Your task to perform on an android device: Clear all items from cart on target. Add alienware aurora to the cart on target, then select checkout. Image 0: 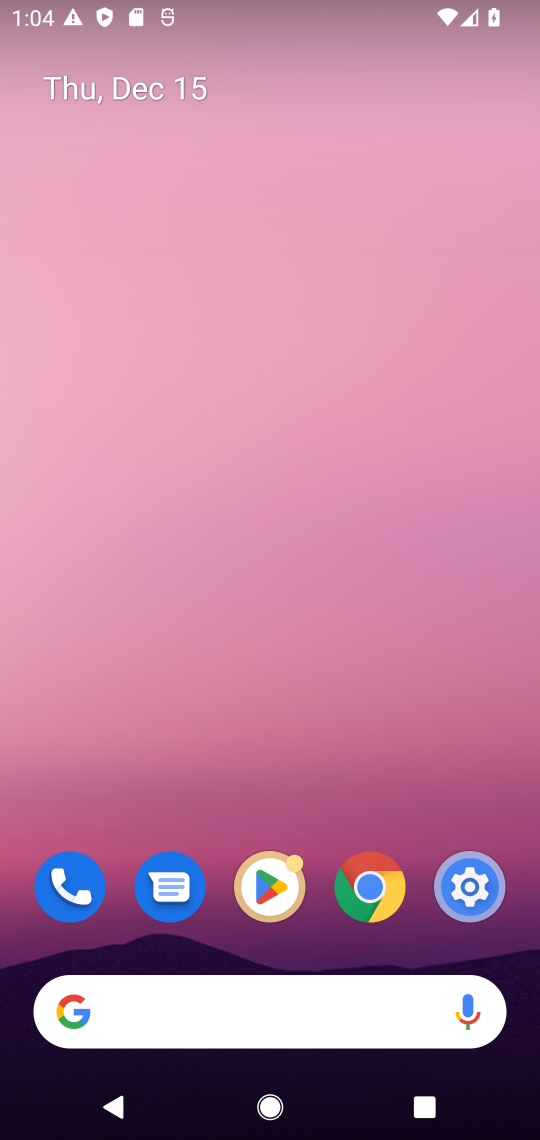
Step 0: click (397, 876)
Your task to perform on an android device: Clear all items from cart on target. Add alienware aurora to the cart on target, then select checkout. Image 1: 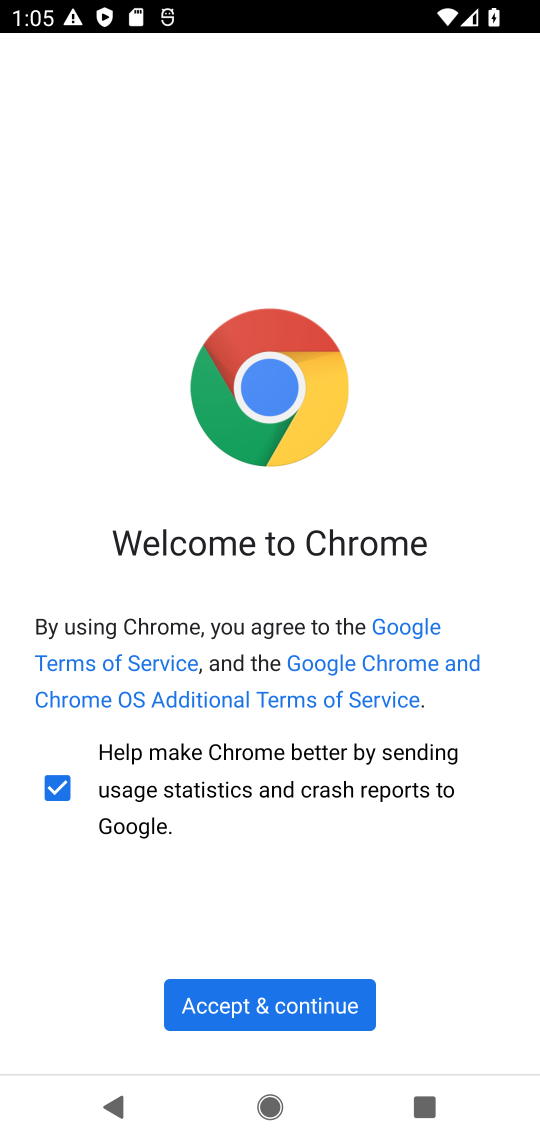
Step 1: click (237, 1006)
Your task to perform on an android device: Clear all items from cart on target. Add alienware aurora to the cart on target, then select checkout. Image 2: 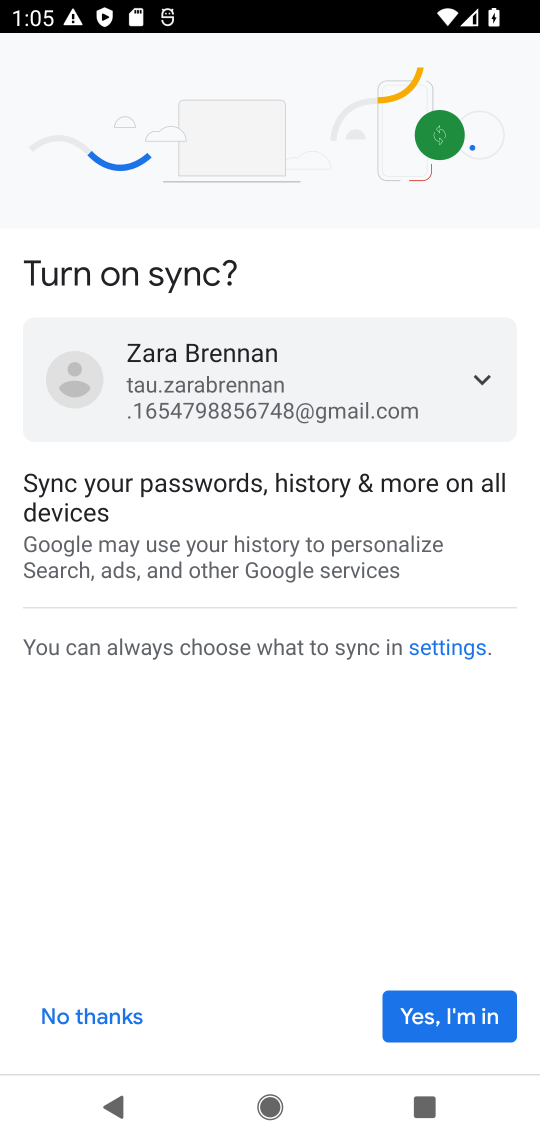
Step 2: click (76, 1021)
Your task to perform on an android device: Clear all items from cart on target. Add alienware aurora to the cart on target, then select checkout. Image 3: 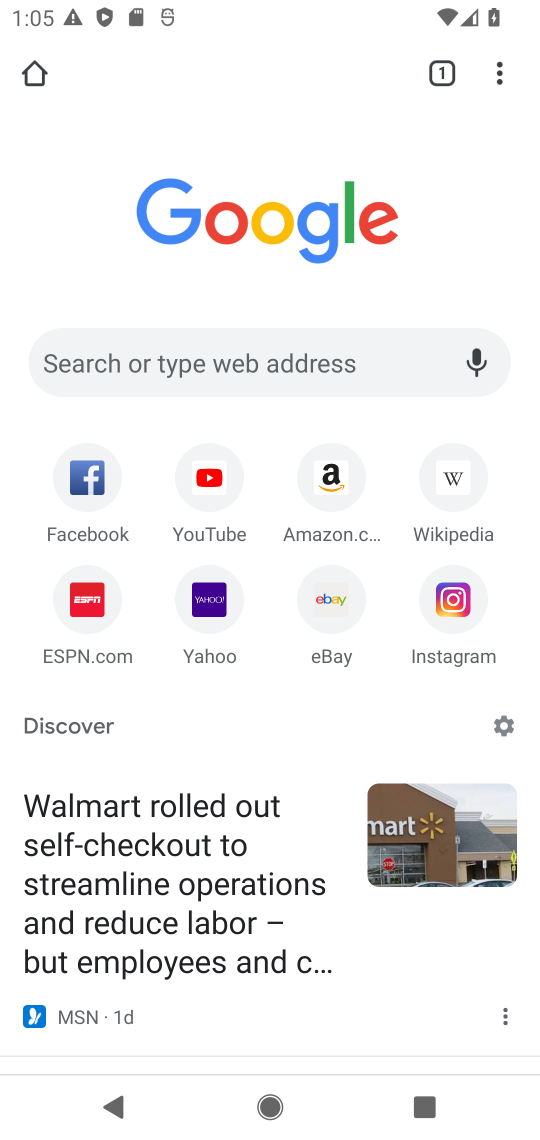
Step 3: click (168, 361)
Your task to perform on an android device: Clear all items from cart on target. Add alienware aurora to the cart on target, then select checkout. Image 4: 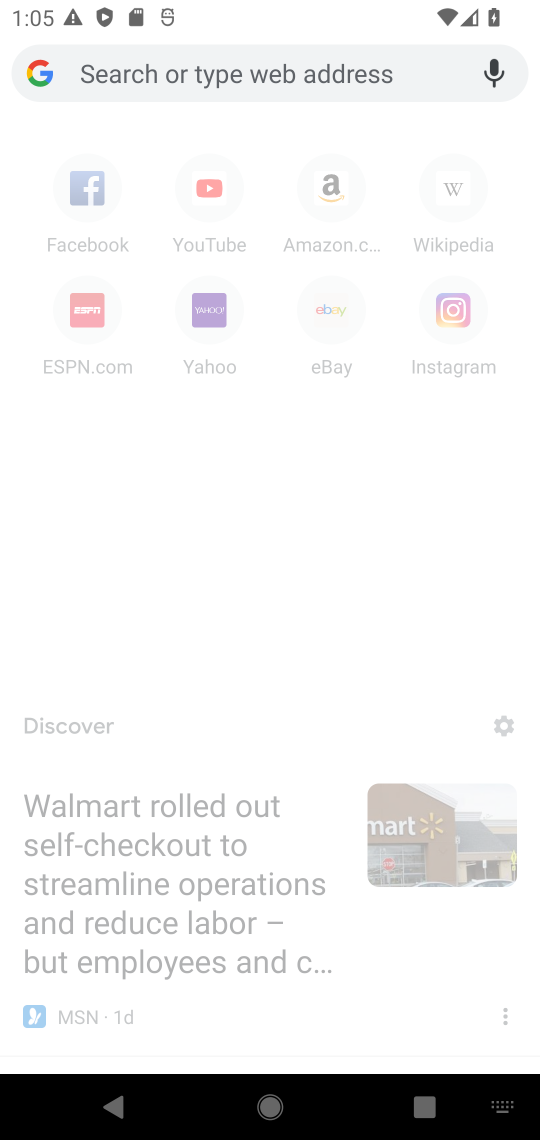
Step 4: type "target.com"
Your task to perform on an android device: Clear all items from cart on target. Add alienware aurora to the cart on target, then select checkout. Image 5: 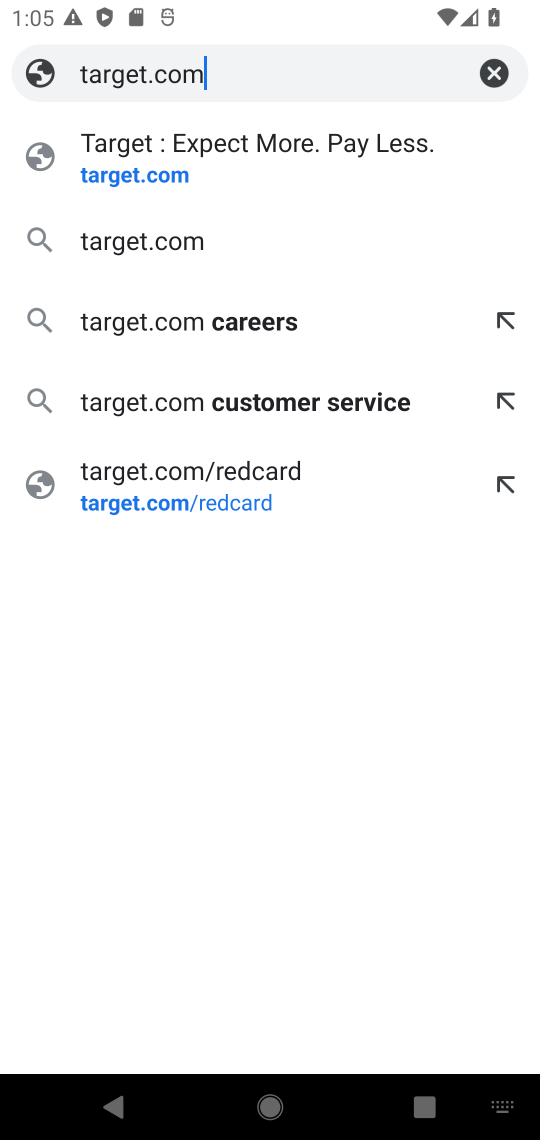
Step 5: click (149, 179)
Your task to perform on an android device: Clear all items from cart on target. Add alienware aurora to the cart on target, then select checkout. Image 6: 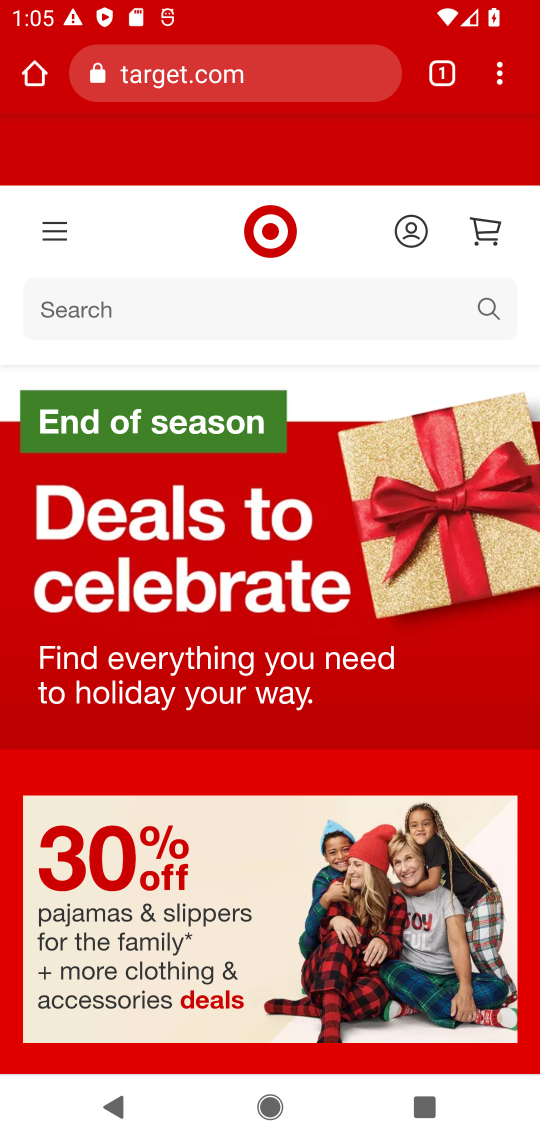
Step 6: click (482, 242)
Your task to perform on an android device: Clear all items from cart on target. Add alienware aurora to the cart on target, then select checkout. Image 7: 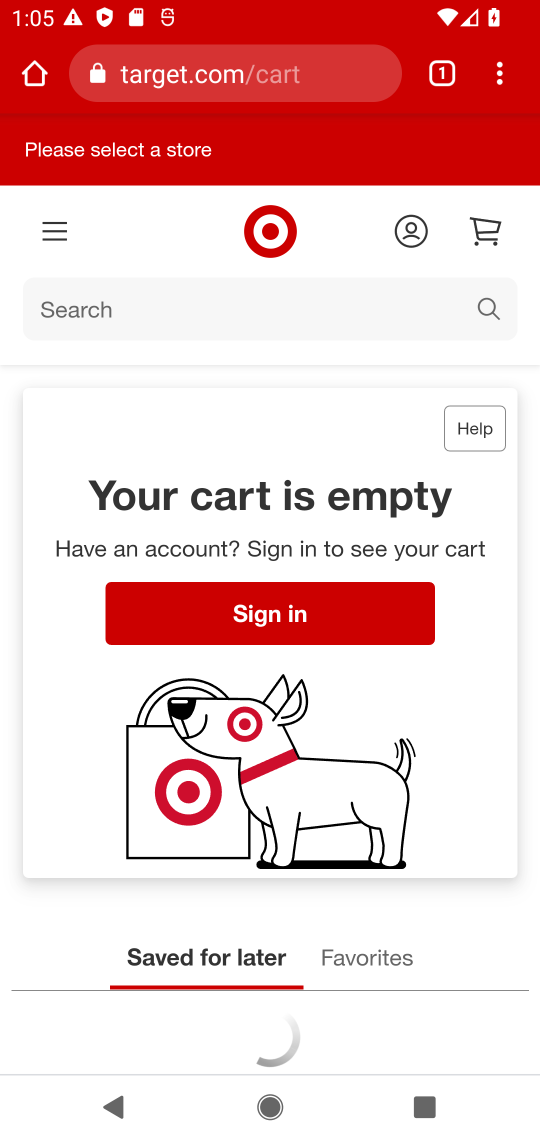
Step 7: click (82, 319)
Your task to perform on an android device: Clear all items from cart on target. Add alienware aurora to the cart on target, then select checkout. Image 8: 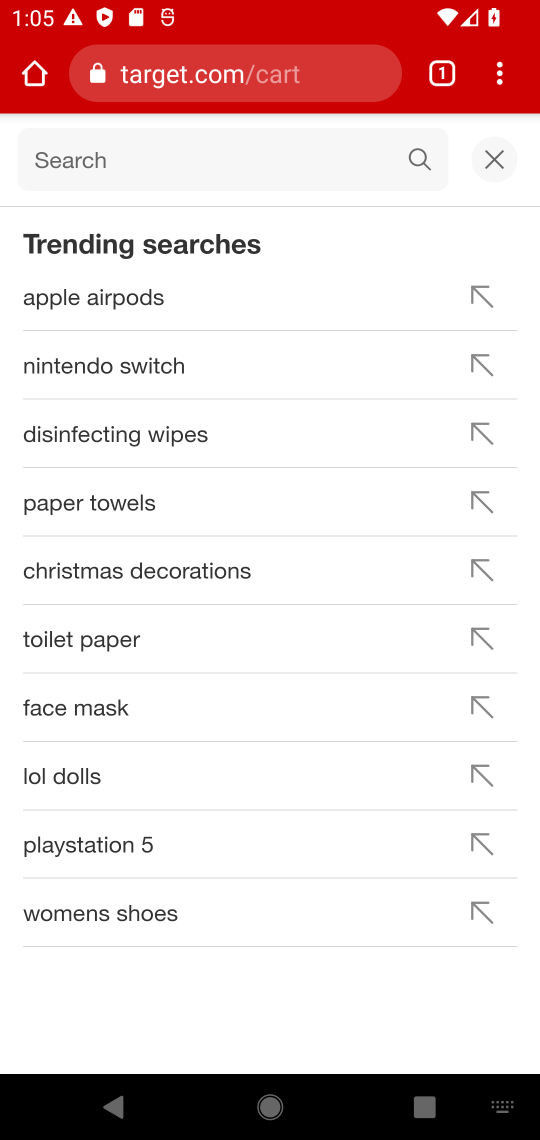
Step 8: type "alienware aurora"
Your task to perform on an android device: Clear all items from cart on target. Add alienware aurora to the cart on target, then select checkout. Image 9: 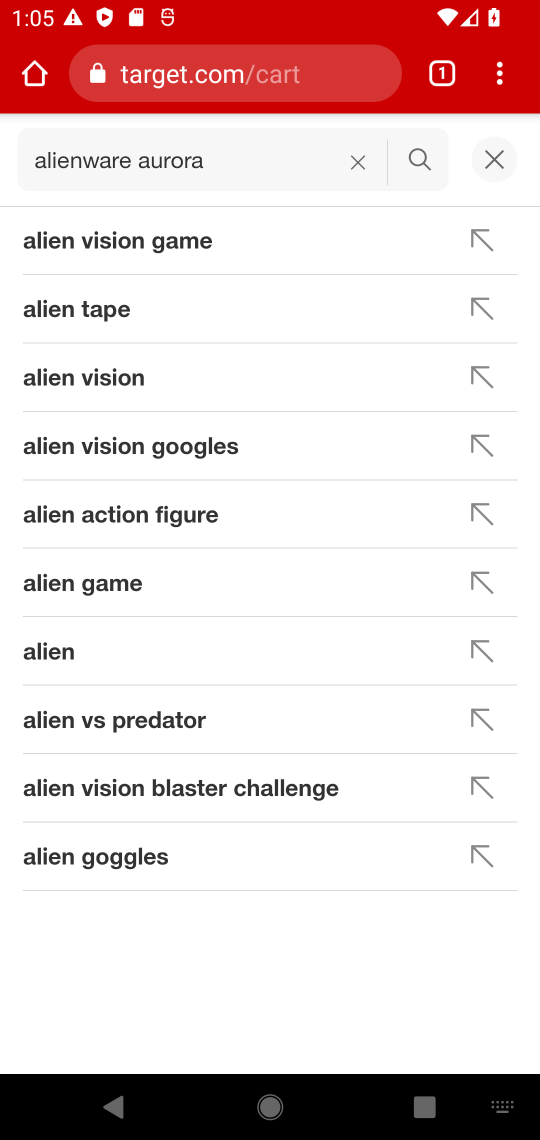
Step 9: click (428, 161)
Your task to perform on an android device: Clear all items from cart on target. Add alienware aurora to the cart on target, then select checkout. Image 10: 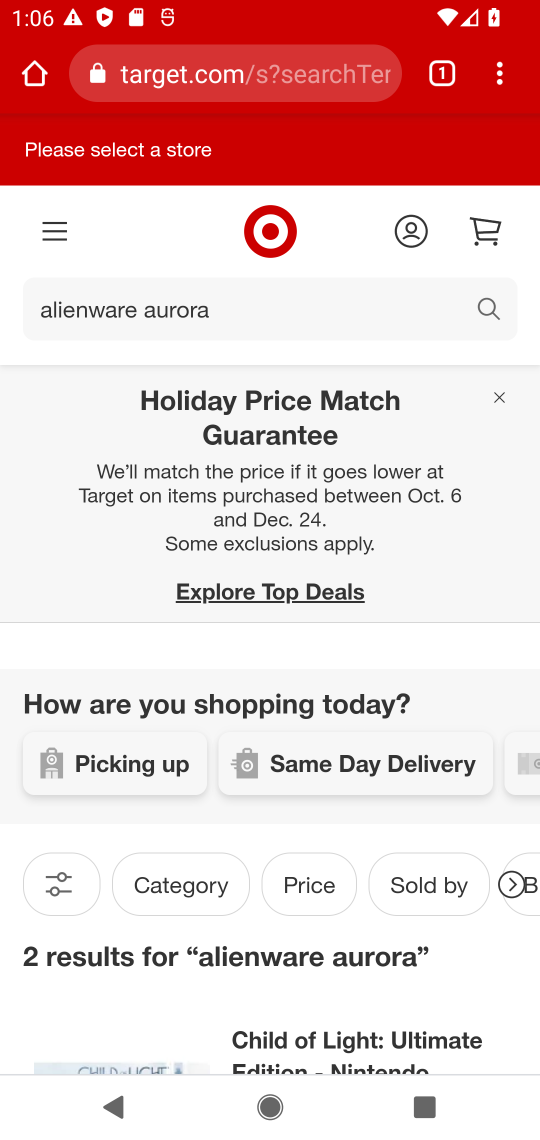
Step 10: task complete